Your task to perform on an android device: turn off improve location accuracy Image 0: 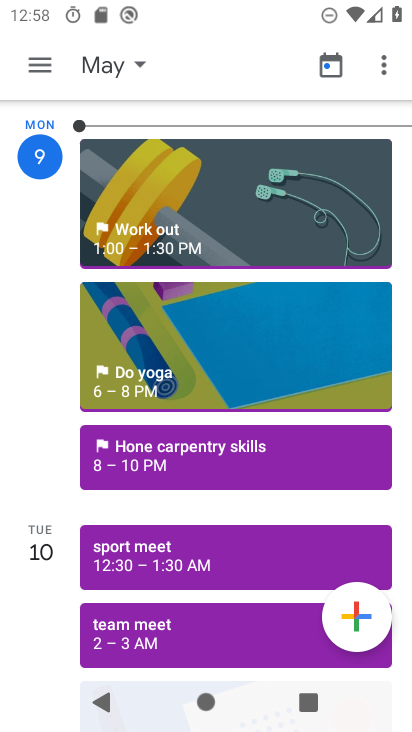
Step 0: press home button
Your task to perform on an android device: turn off improve location accuracy Image 1: 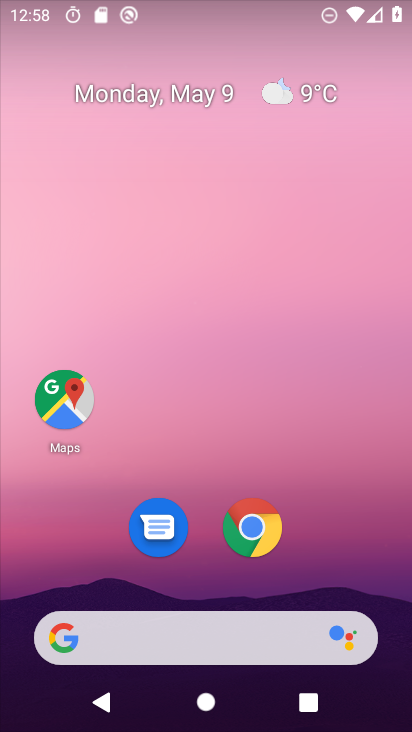
Step 1: drag from (181, 578) to (283, 33)
Your task to perform on an android device: turn off improve location accuracy Image 2: 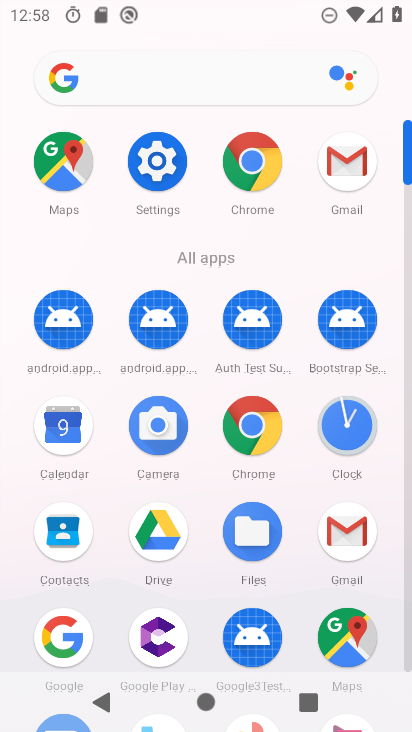
Step 2: click (159, 170)
Your task to perform on an android device: turn off improve location accuracy Image 3: 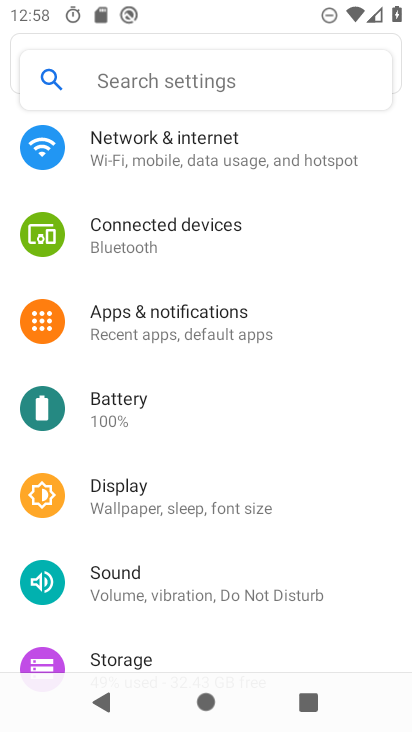
Step 3: drag from (146, 628) to (250, 111)
Your task to perform on an android device: turn off improve location accuracy Image 4: 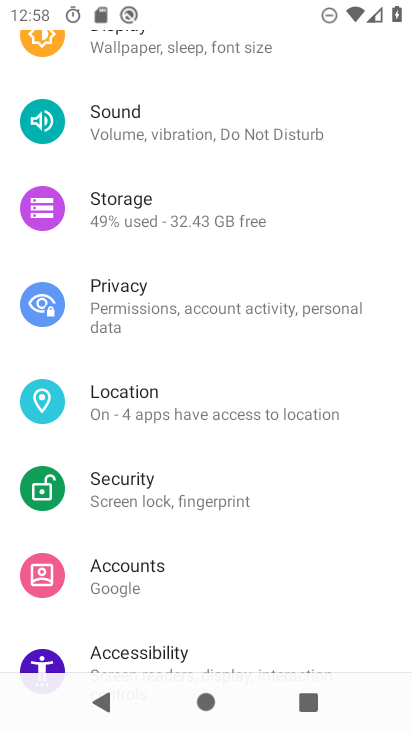
Step 4: click (147, 402)
Your task to perform on an android device: turn off improve location accuracy Image 5: 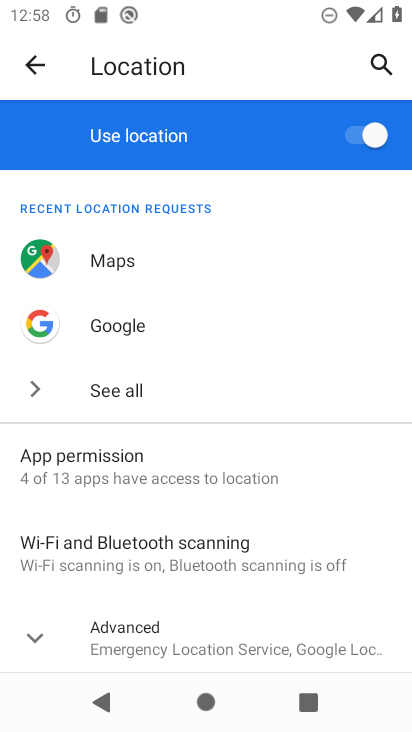
Step 5: drag from (168, 564) to (249, 216)
Your task to perform on an android device: turn off improve location accuracy Image 6: 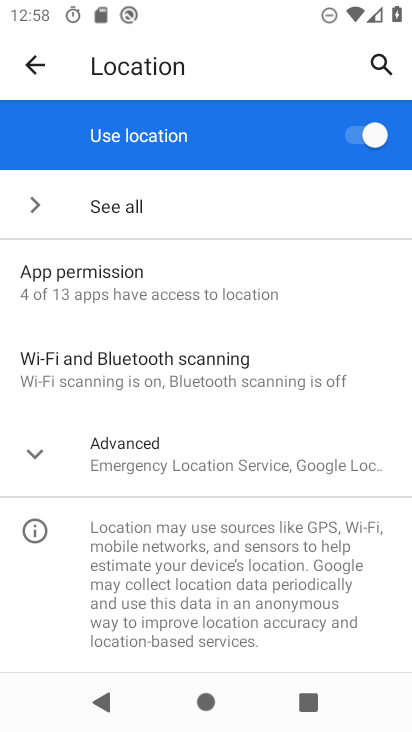
Step 6: click (128, 447)
Your task to perform on an android device: turn off improve location accuracy Image 7: 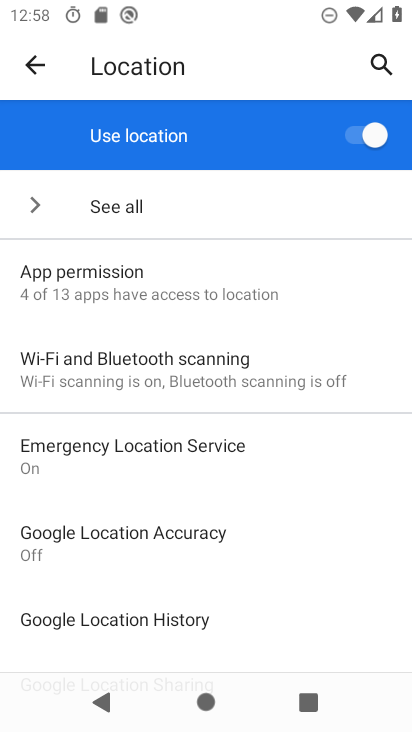
Step 7: click (105, 524)
Your task to perform on an android device: turn off improve location accuracy Image 8: 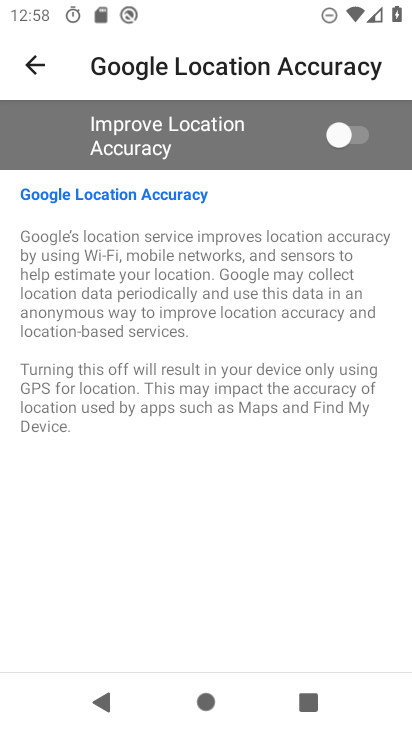
Step 8: task complete